Your task to perform on an android device: install app "Yahoo Mail" Image 0: 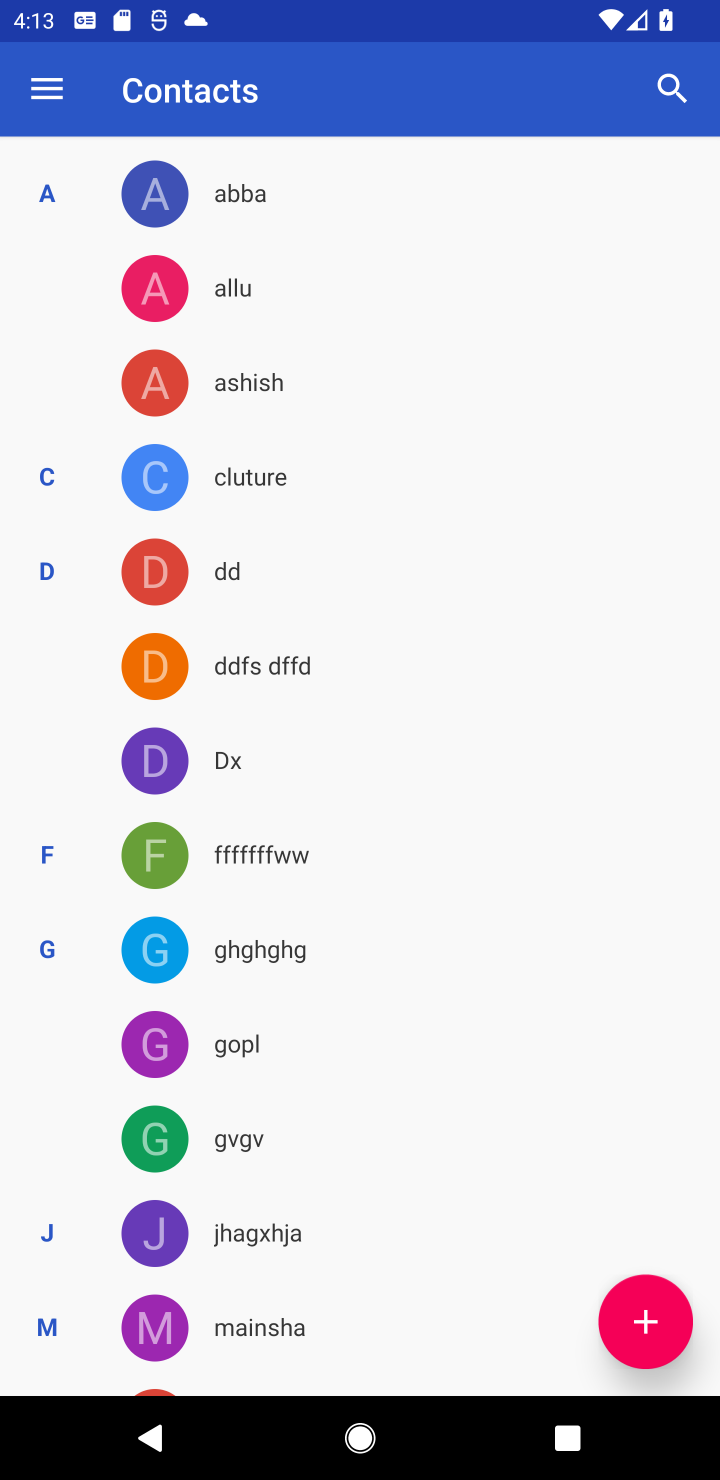
Step 0: press home button
Your task to perform on an android device: install app "Yahoo Mail" Image 1: 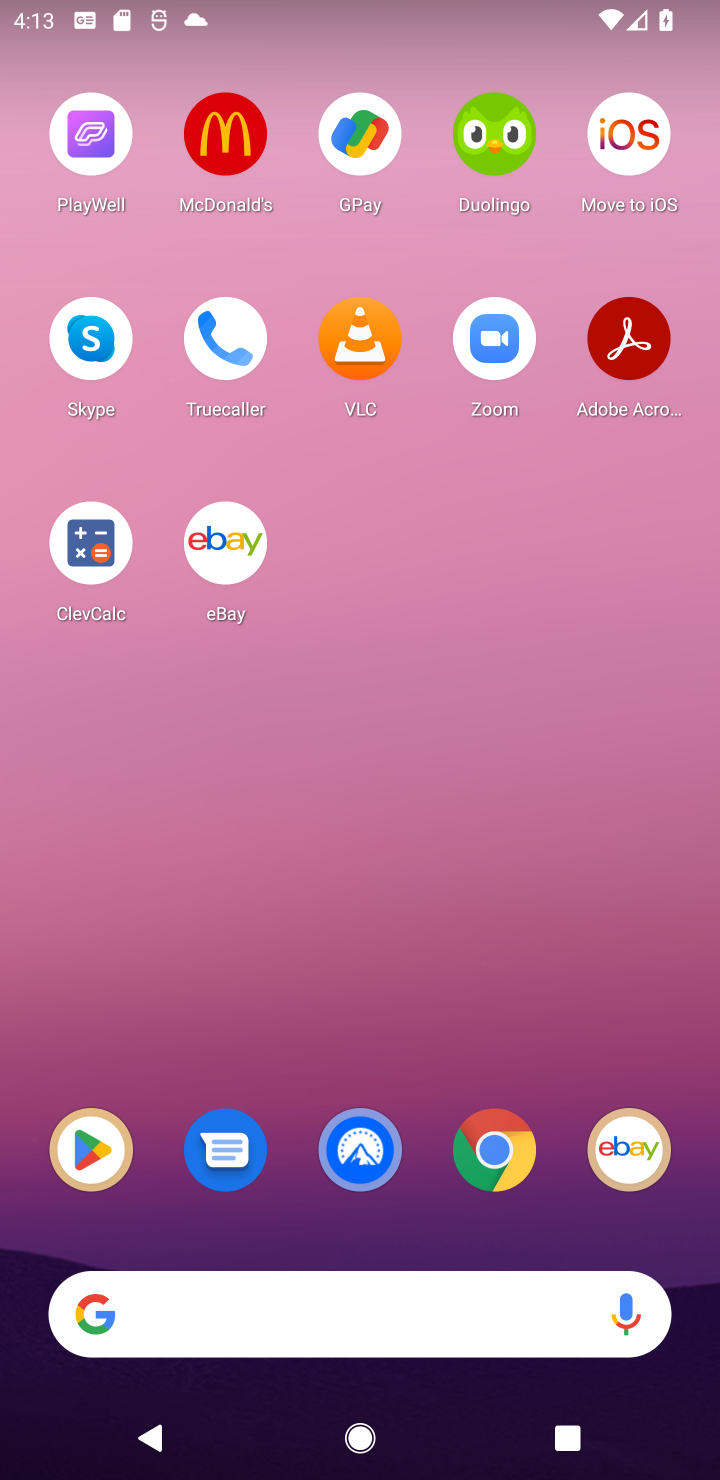
Step 1: click (118, 1139)
Your task to perform on an android device: install app "Yahoo Mail" Image 2: 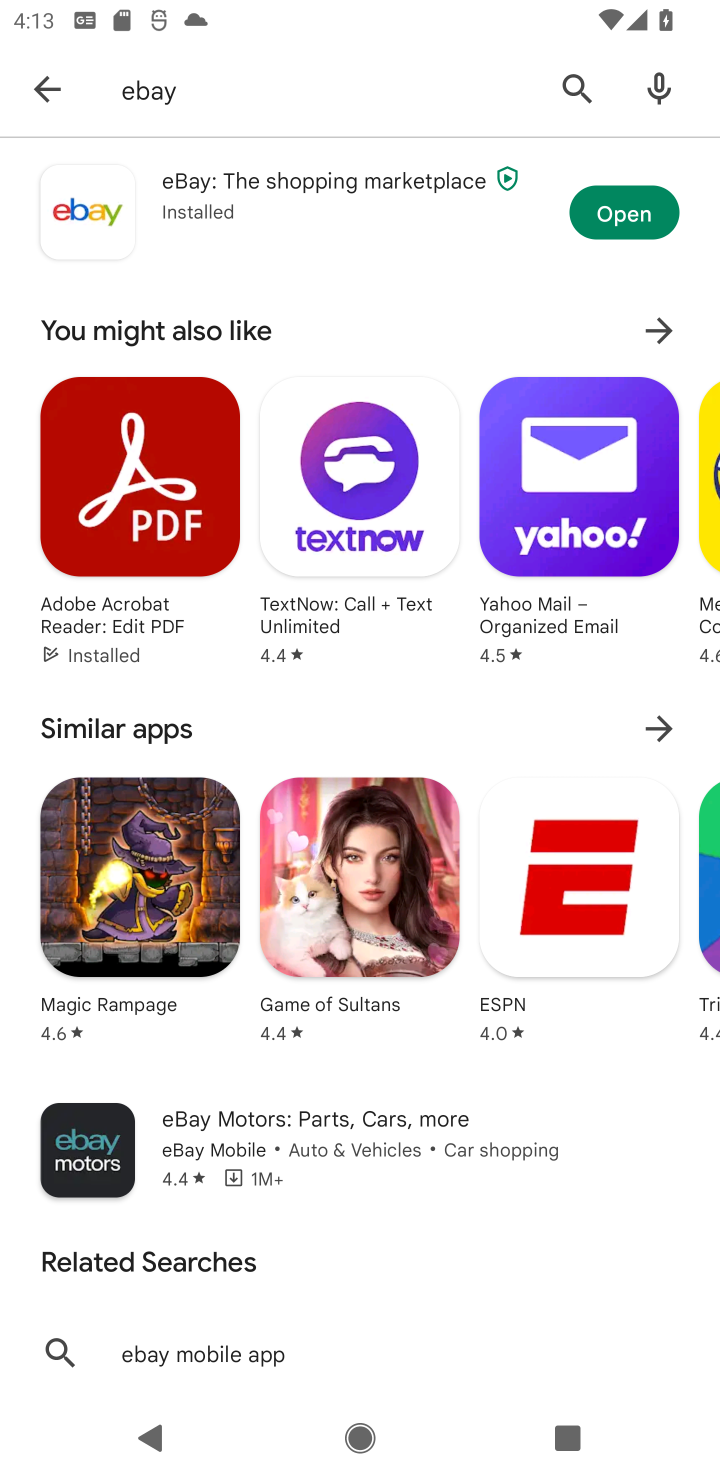
Step 2: click (570, 93)
Your task to perform on an android device: install app "Yahoo Mail" Image 3: 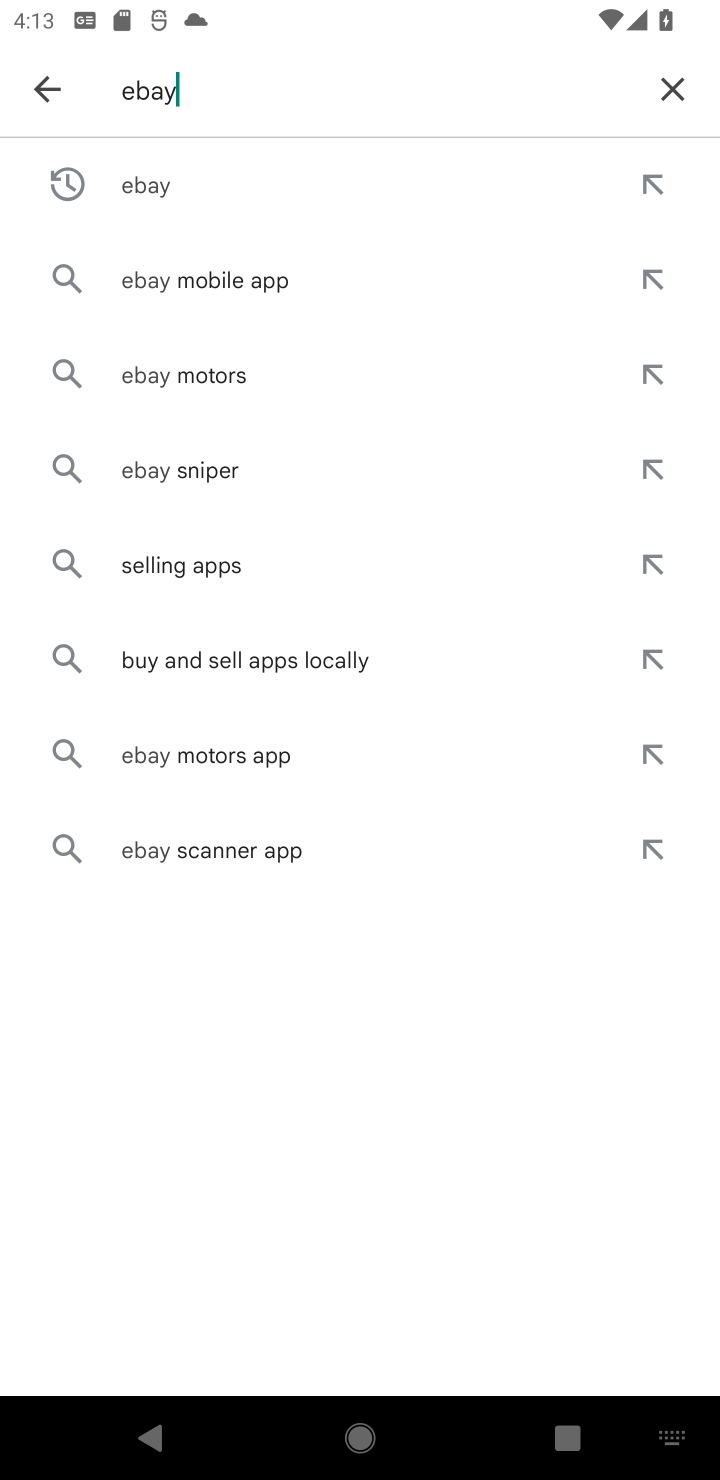
Step 3: click (666, 79)
Your task to perform on an android device: install app "Yahoo Mail" Image 4: 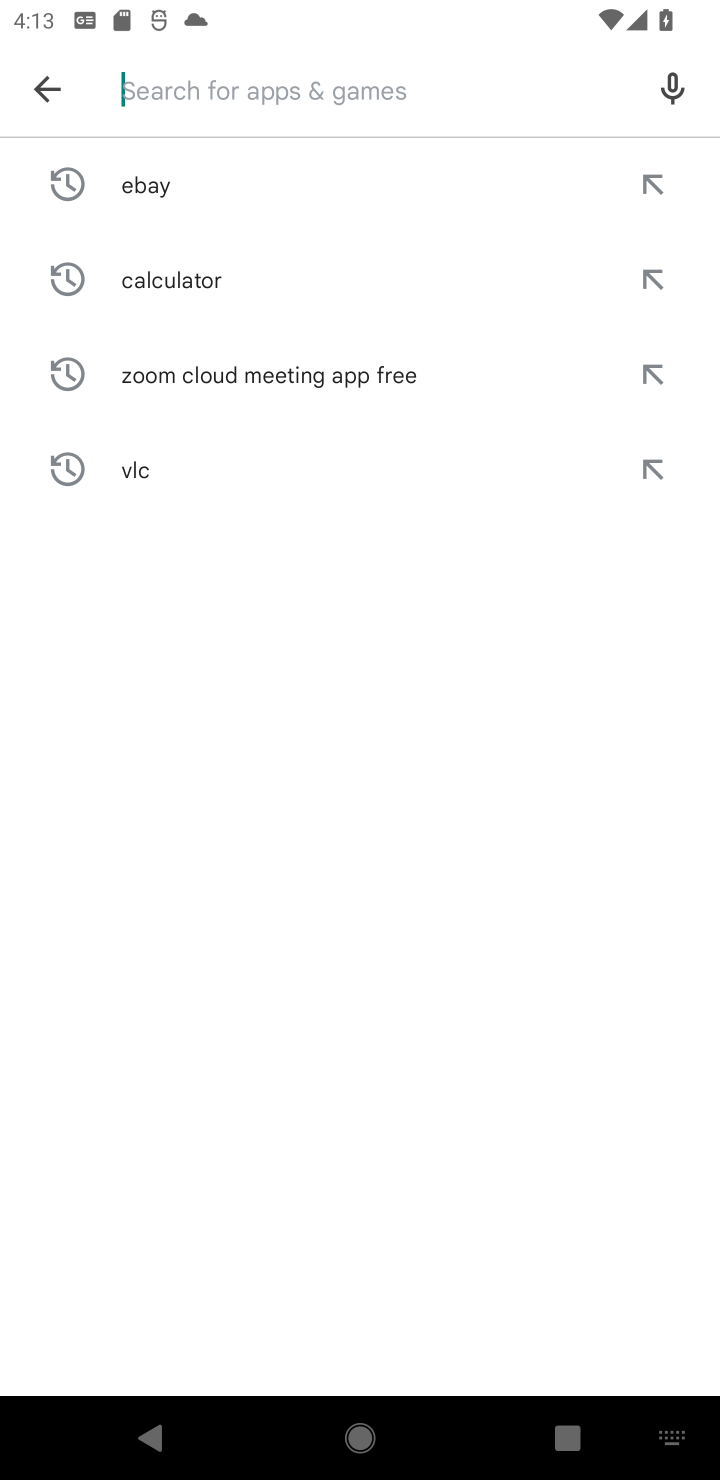
Step 4: type "yahoomail.com"
Your task to perform on an android device: install app "Yahoo Mail" Image 5: 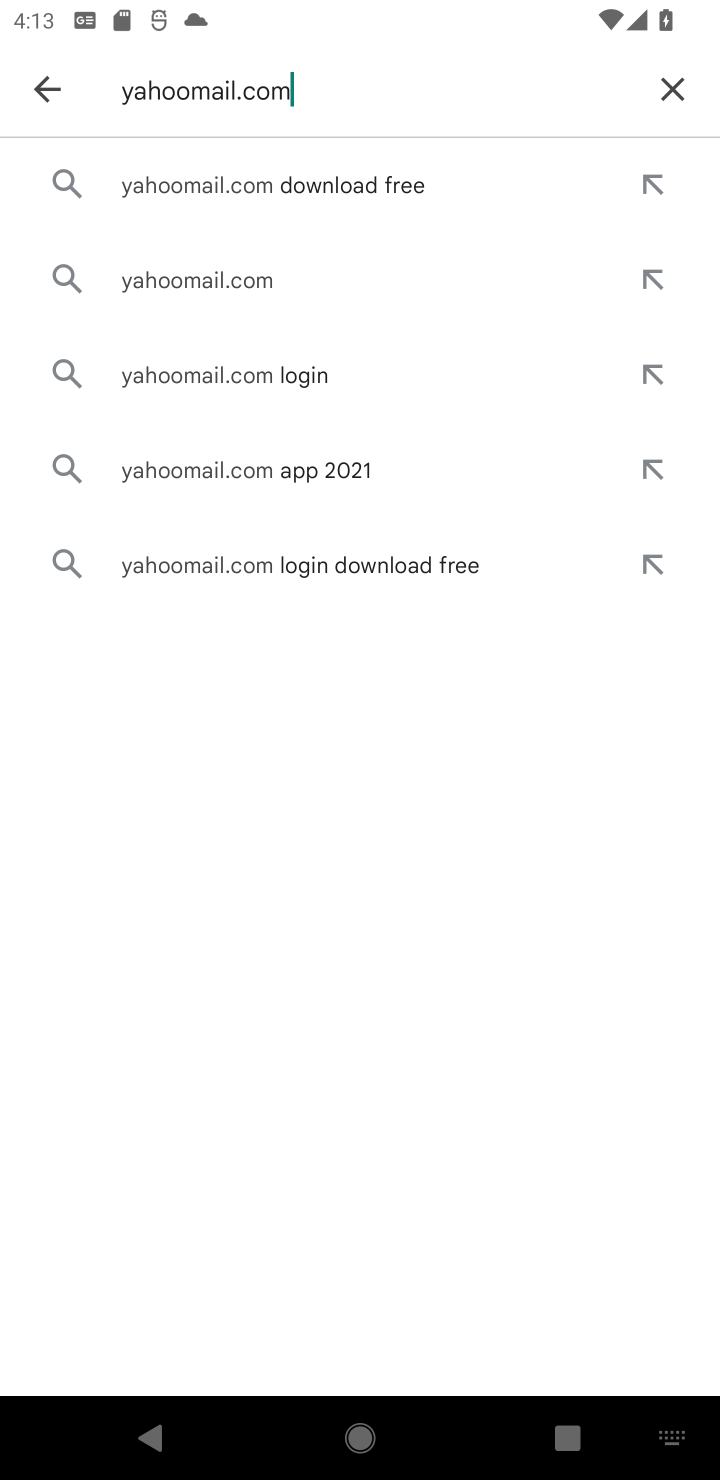
Step 5: click (375, 197)
Your task to perform on an android device: install app "Yahoo Mail" Image 6: 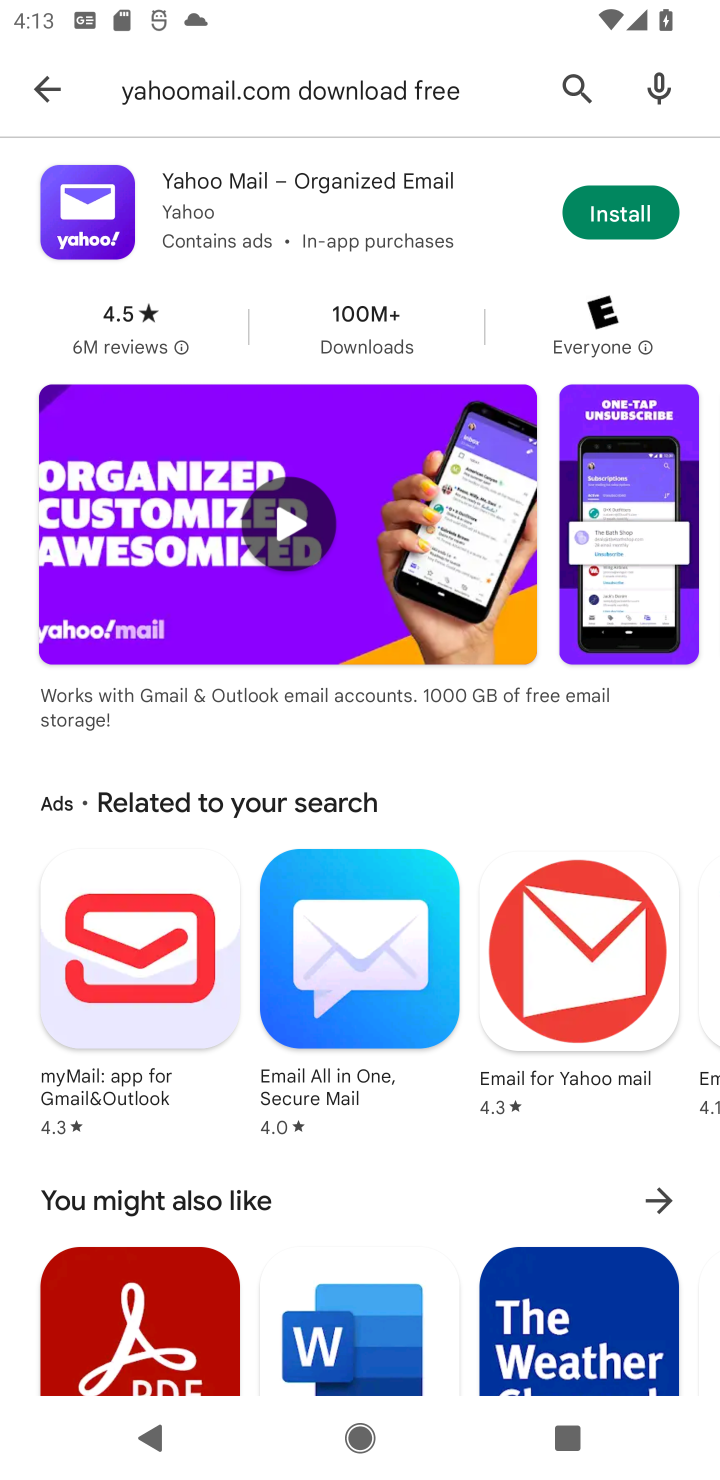
Step 6: click (617, 219)
Your task to perform on an android device: install app "Yahoo Mail" Image 7: 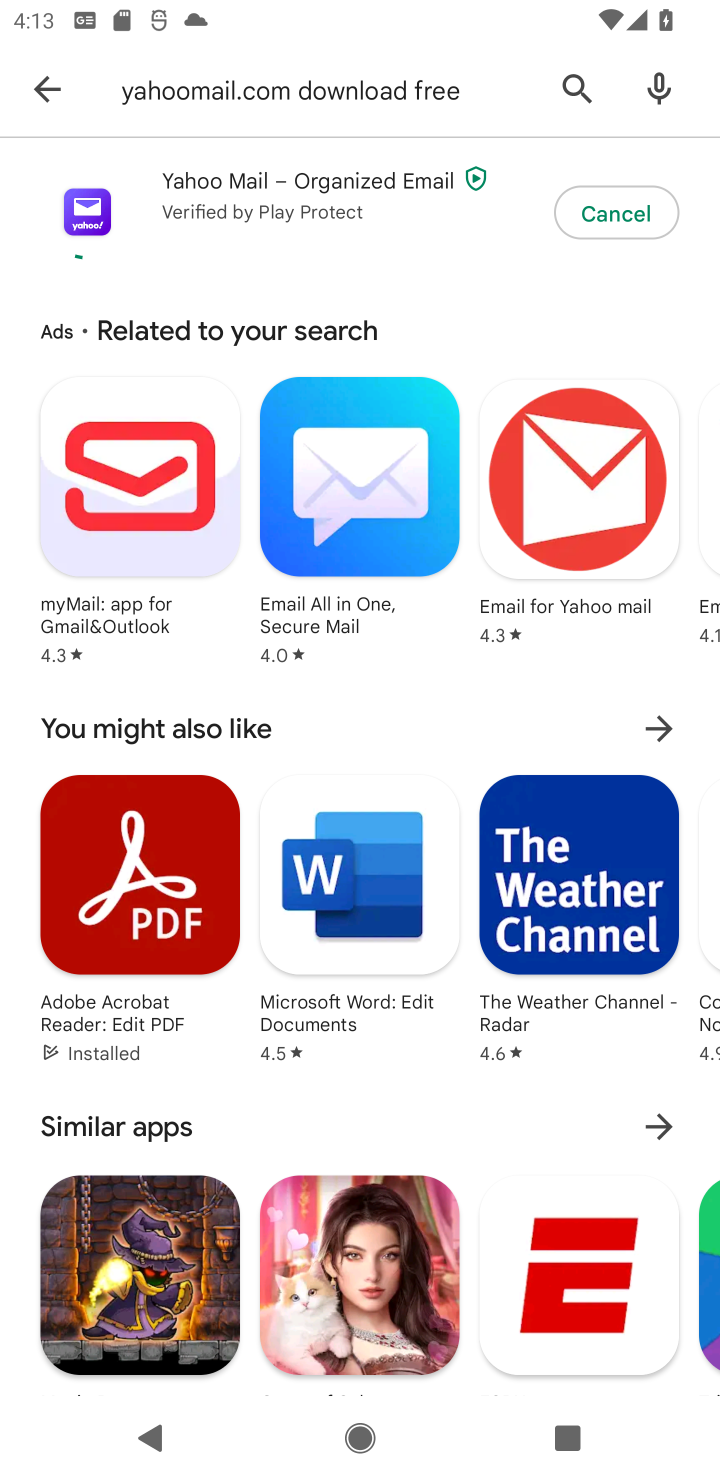
Step 7: task complete